Your task to perform on an android device: Open Amazon Image 0: 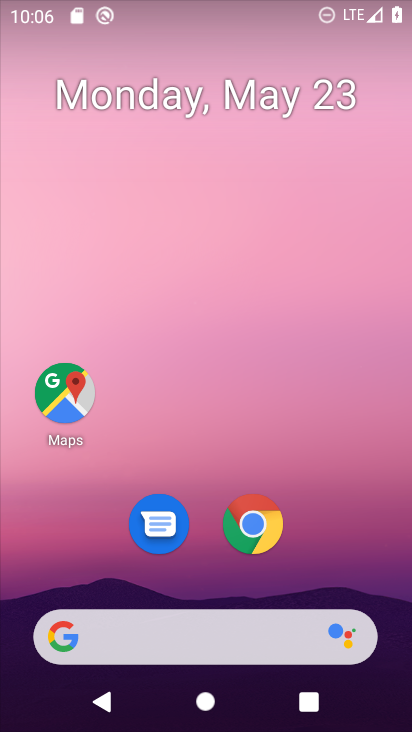
Step 0: click (267, 530)
Your task to perform on an android device: Open Amazon Image 1: 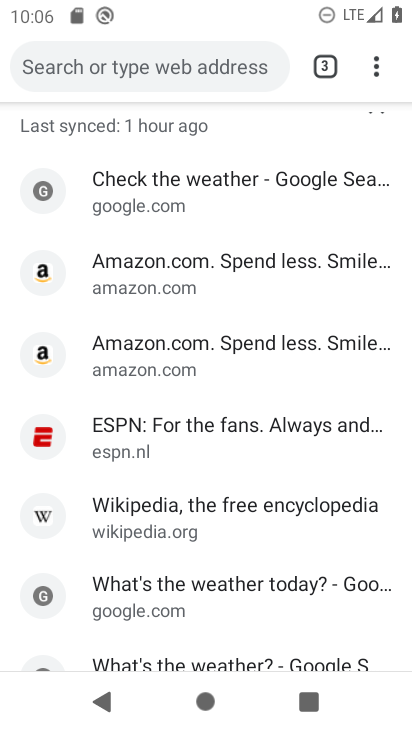
Step 1: click (380, 68)
Your task to perform on an android device: Open Amazon Image 2: 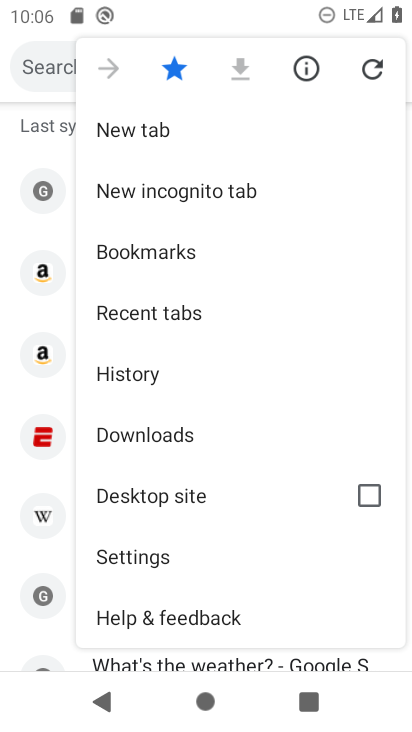
Step 2: click (29, 216)
Your task to perform on an android device: Open Amazon Image 3: 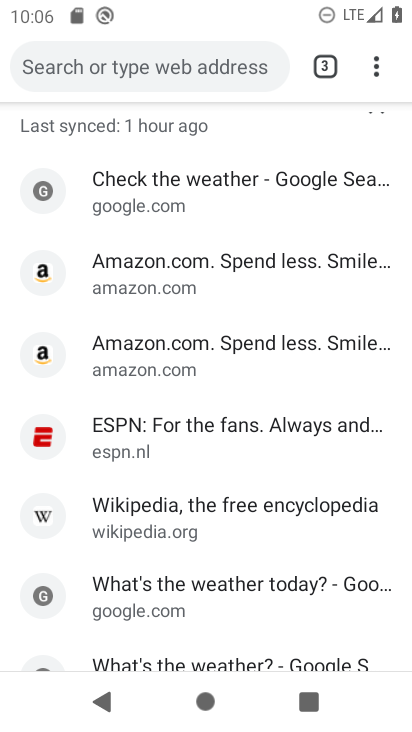
Step 3: click (159, 264)
Your task to perform on an android device: Open Amazon Image 4: 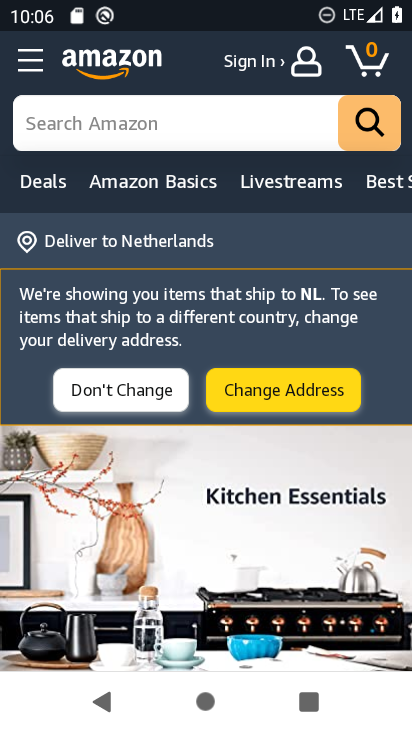
Step 4: task complete